Your task to perform on an android device: Show the shopping cart on costco.com. Search for "logitech g502" on costco.com, select the first entry, and add it to the cart. Image 0: 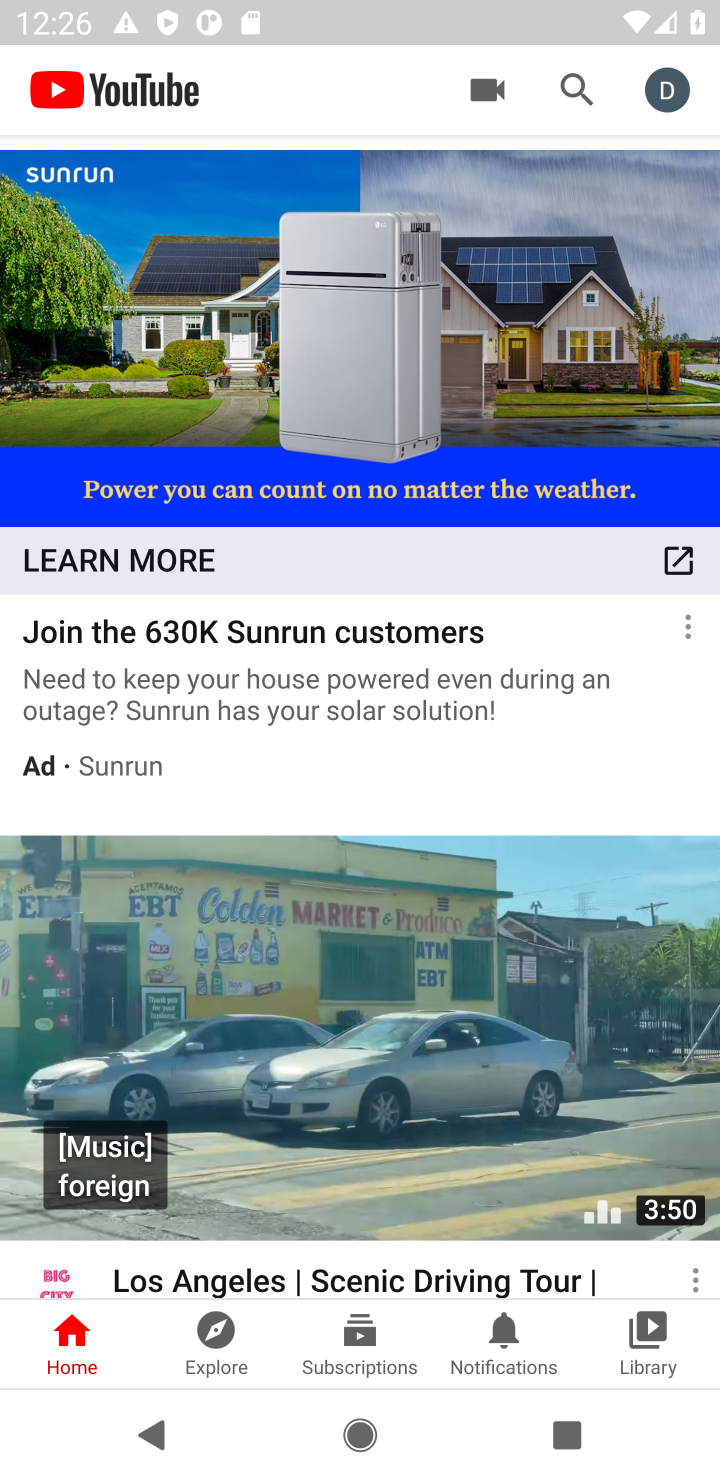
Step 0: task complete